Your task to perform on an android device: Show me productivity apps on the Play Store Image 0: 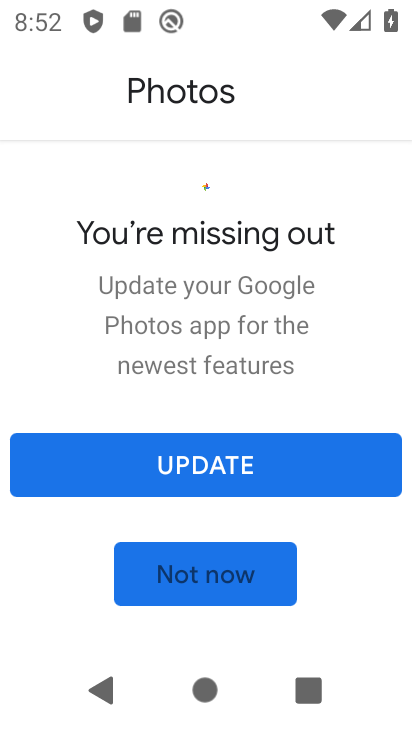
Step 0: press home button
Your task to perform on an android device: Show me productivity apps on the Play Store Image 1: 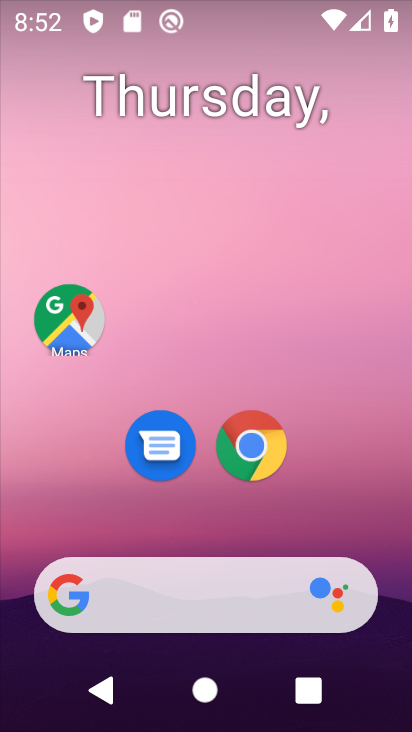
Step 1: drag from (394, 548) to (386, 10)
Your task to perform on an android device: Show me productivity apps on the Play Store Image 2: 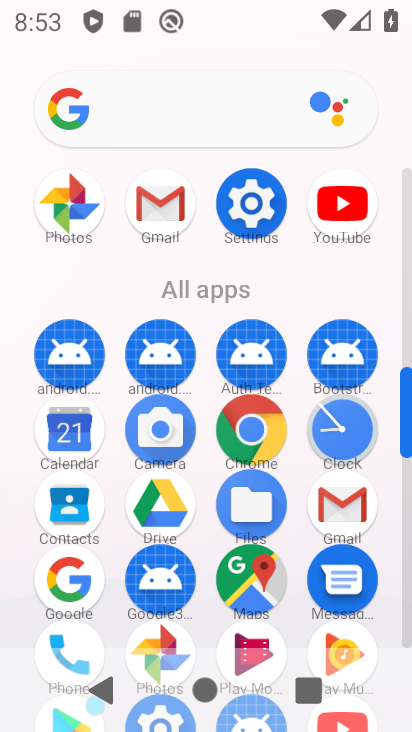
Step 2: click (408, 450)
Your task to perform on an android device: Show me productivity apps on the Play Store Image 3: 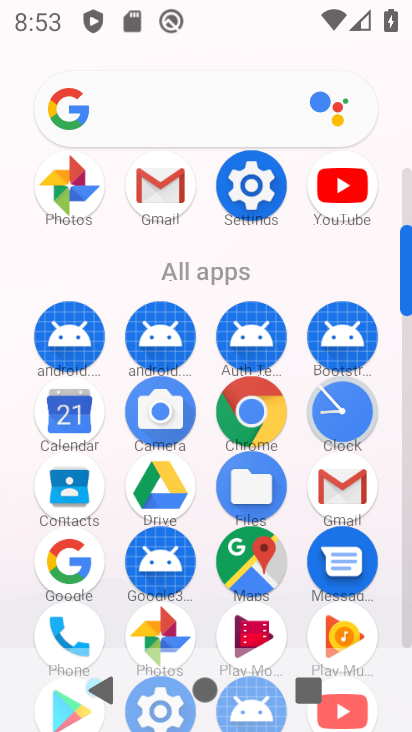
Step 3: drag from (403, 408) to (408, 331)
Your task to perform on an android device: Show me productivity apps on the Play Store Image 4: 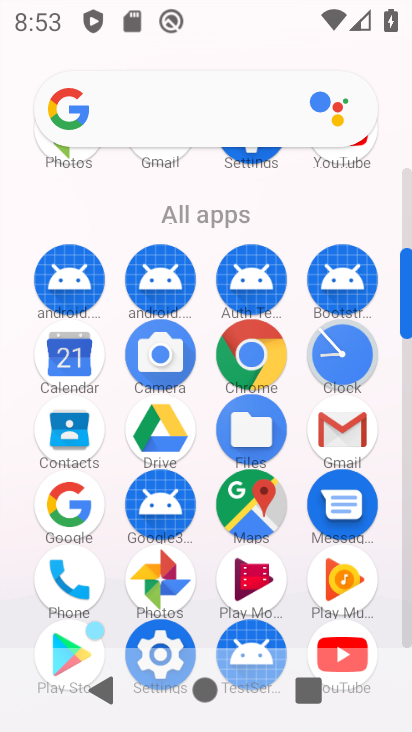
Step 4: click (69, 636)
Your task to perform on an android device: Show me productivity apps on the Play Store Image 5: 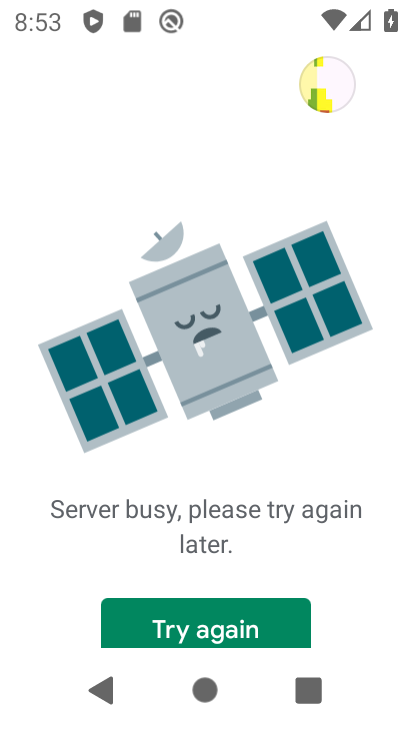
Step 5: task complete